Your task to perform on an android device: open device folders in google photos Image 0: 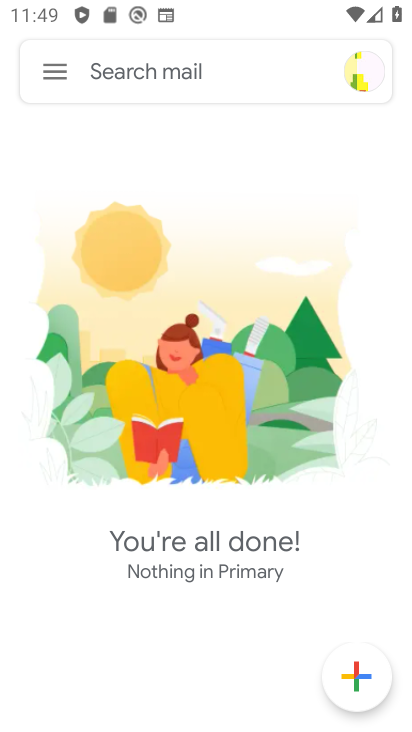
Step 0: press home button
Your task to perform on an android device: open device folders in google photos Image 1: 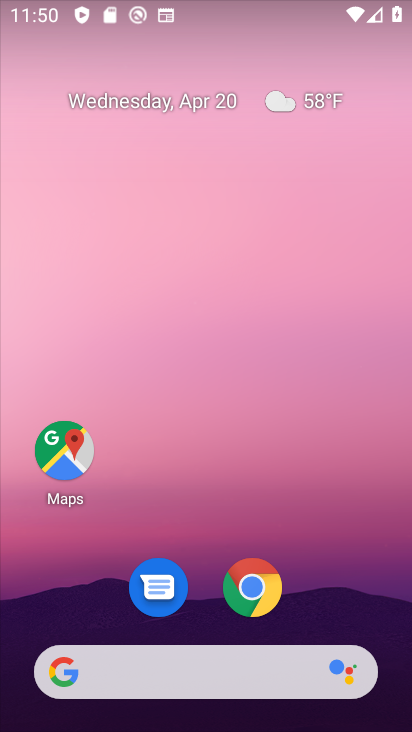
Step 1: drag from (200, 616) to (241, 89)
Your task to perform on an android device: open device folders in google photos Image 2: 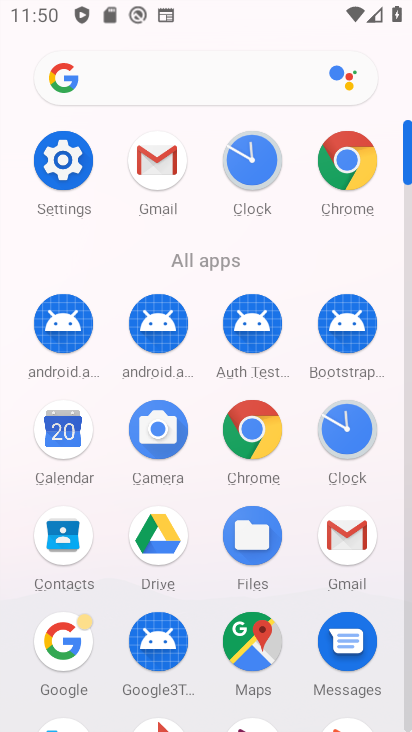
Step 2: drag from (123, 593) to (168, 9)
Your task to perform on an android device: open device folders in google photos Image 3: 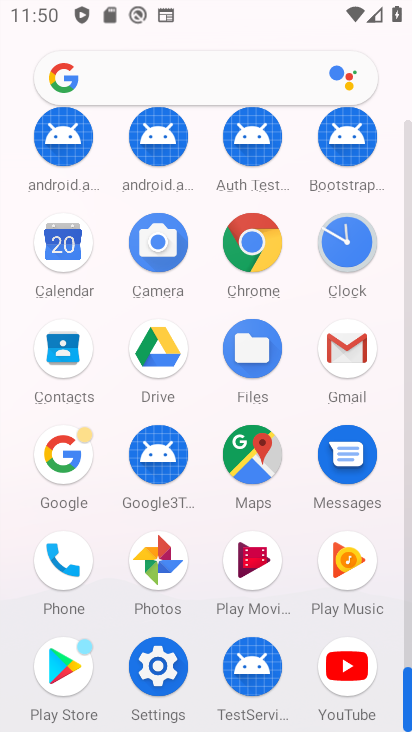
Step 3: click (180, 536)
Your task to perform on an android device: open device folders in google photos Image 4: 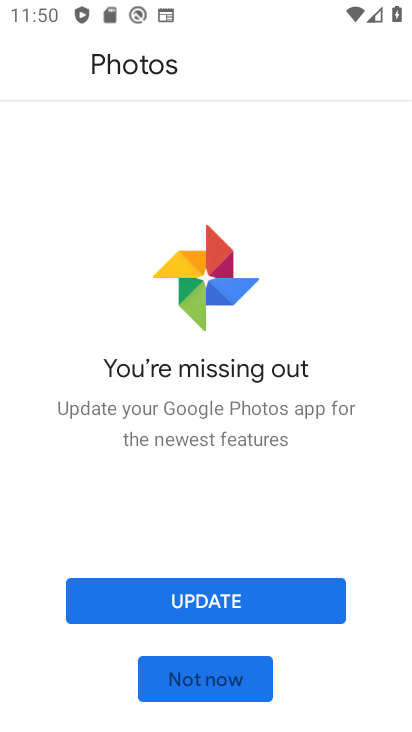
Step 4: click (218, 694)
Your task to perform on an android device: open device folders in google photos Image 5: 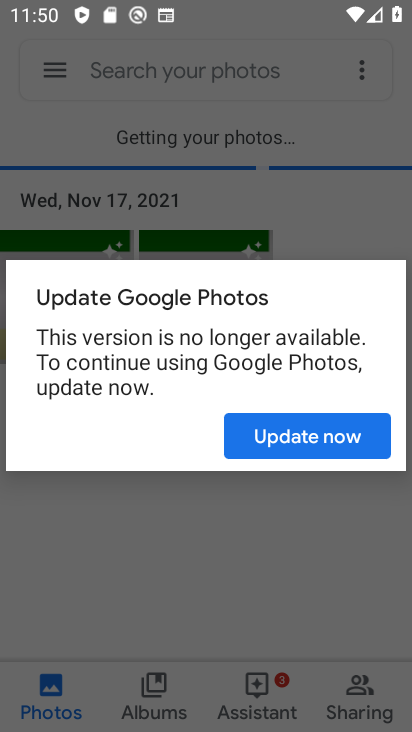
Step 5: click (289, 431)
Your task to perform on an android device: open device folders in google photos Image 6: 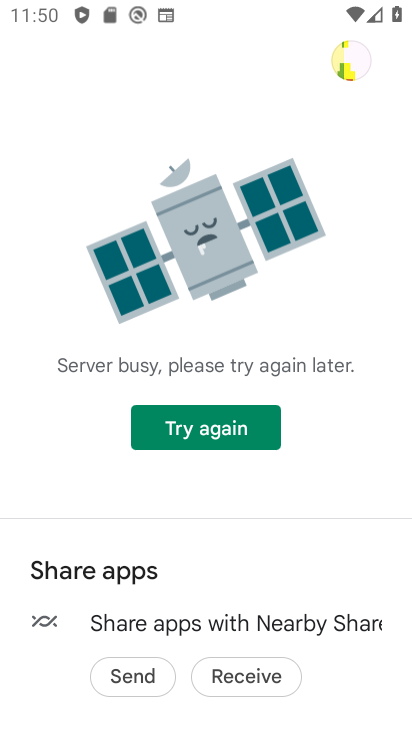
Step 6: press back button
Your task to perform on an android device: open device folders in google photos Image 7: 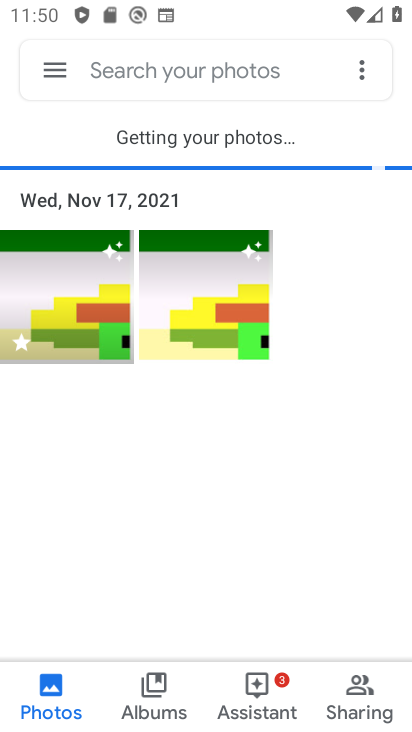
Step 7: click (46, 63)
Your task to perform on an android device: open device folders in google photos Image 8: 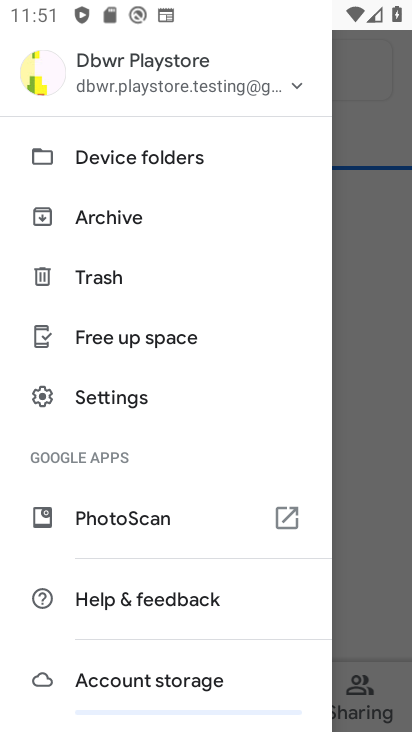
Step 8: click (163, 163)
Your task to perform on an android device: open device folders in google photos Image 9: 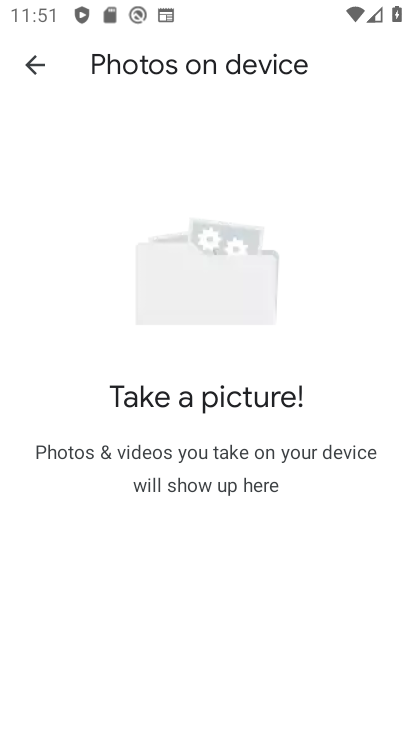
Step 9: task complete